Your task to perform on an android device: change the clock style Image 0: 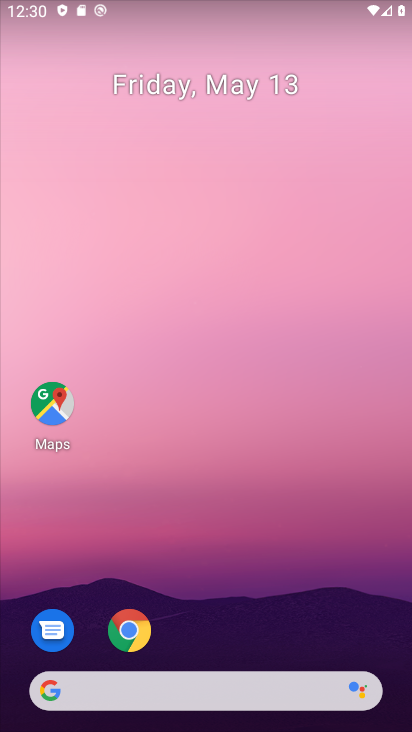
Step 0: drag from (235, 721) to (262, 211)
Your task to perform on an android device: change the clock style Image 1: 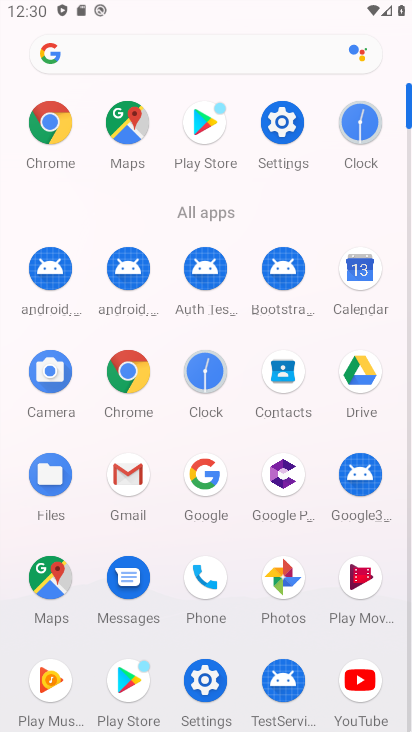
Step 1: click (210, 376)
Your task to perform on an android device: change the clock style Image 2: 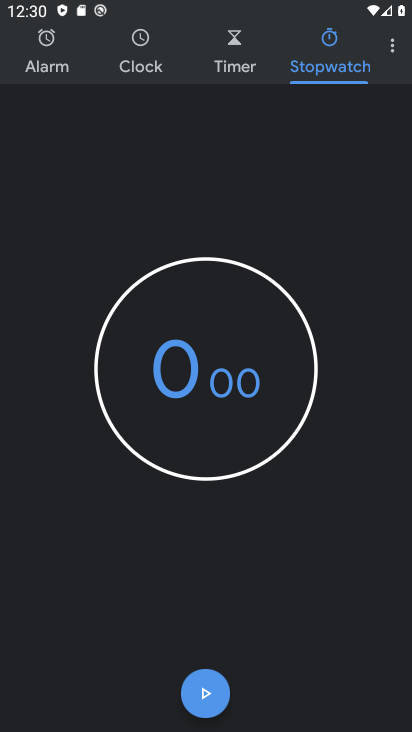
Step 2: click (381, 38)
Your task to perform on an android device: change the clock style Image 3: 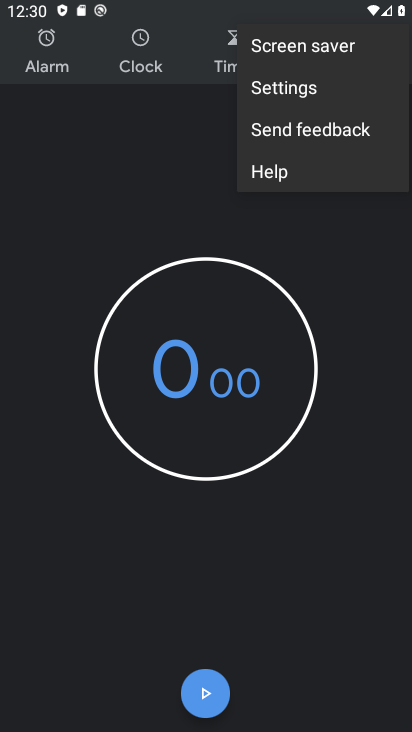
Step 3: click (307, 99)
Your task to perform on an android device: change the clock style Image 4: 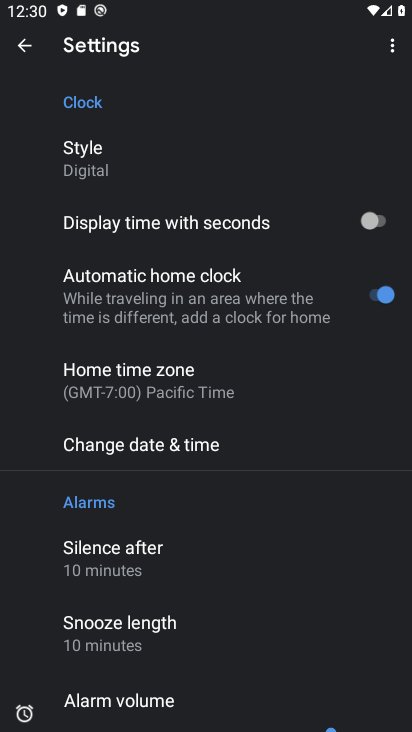
Step 4: click (188, 167)
Your task to perform on an android device: change the clock style Image 5: 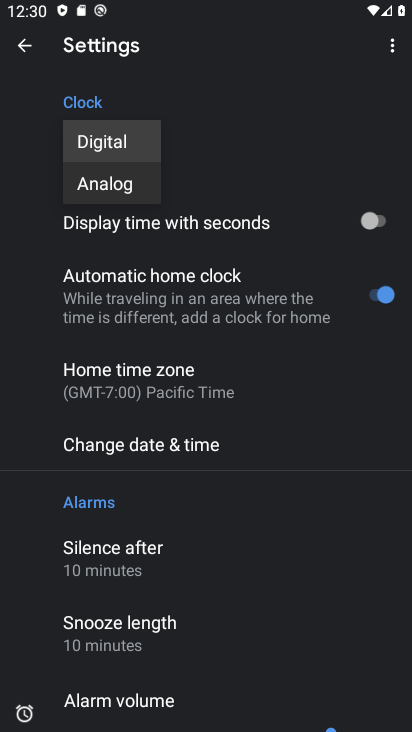
Step 5: click (129, 176)
Your task to perform on an android device: change the clock style Image 6: 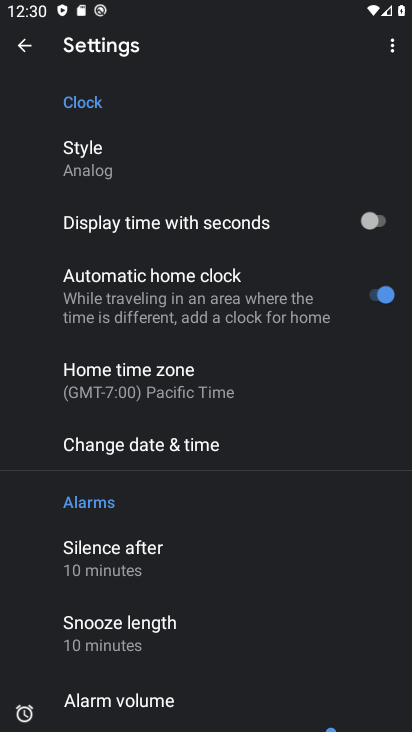
Step 6: task complete